Your task to perform on an android device: Open Google Chrome Image 0: 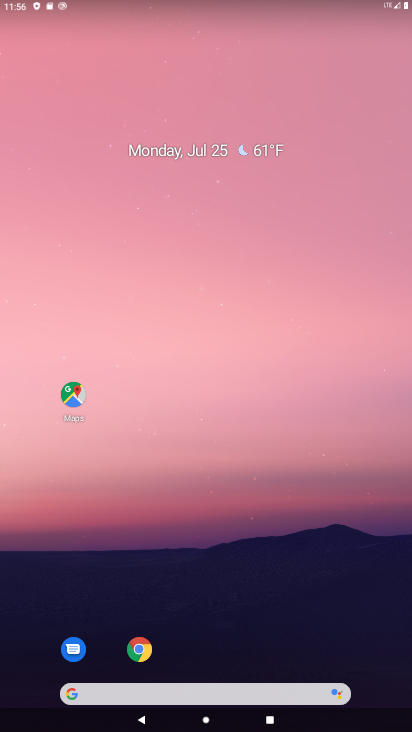
Step 0: drag from (198, 672) to (159, 88)
Your task to perform on an android device: Open Google Chrome Image 1: 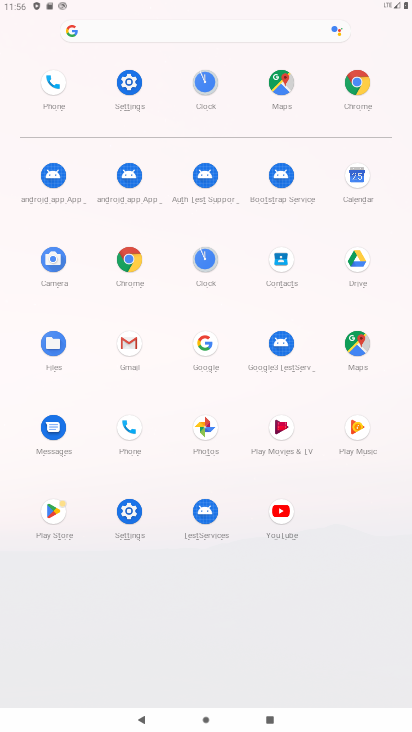
Step 1: click (126, 262)
Your task to perform on an android device: Open Google Chrome Image 2: 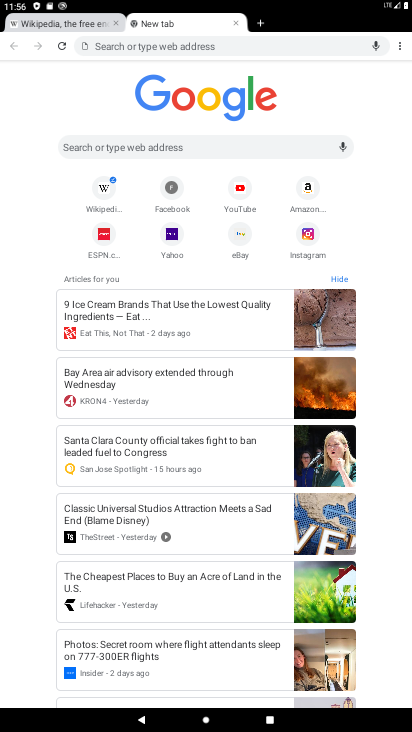
Step 2: task complete